Your task to perform on an android device: install app "Microsoft Excel" Image 0: 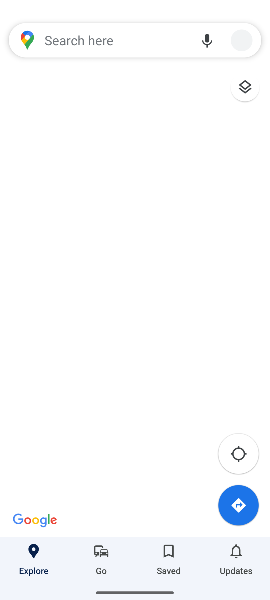
Step 0: press home button
Your task to perform on an android device: install app "Microsoft Excel" Image 1: 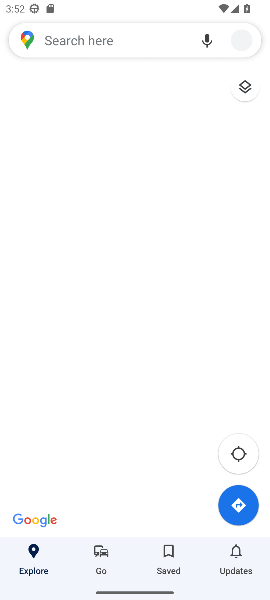
Step 1: press home button
Your task to perform on an android device: install app "Microsoft Excel" Image 2: 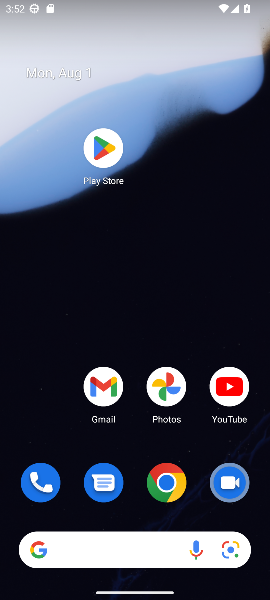
Step 2: click (104, 150)
Your task to perform on an android device: install app "Microsoft Excel" Image 3: 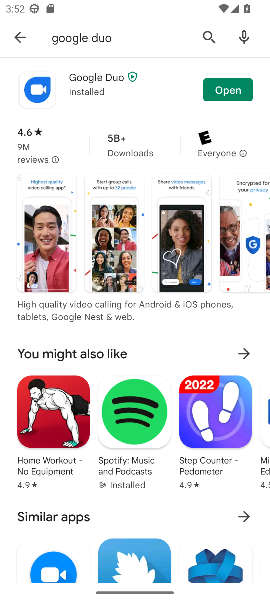
Step 3: click (203, 34)
Your task to perform on an android device: install app "Microsoft Excel" Image 4: 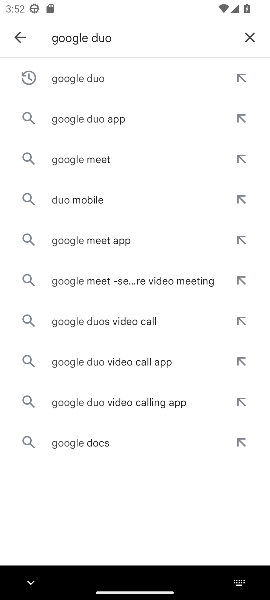
Step 4: click (248, 31)
Your task to perform on an android device: install app "Microsoft Excel" Image 5: 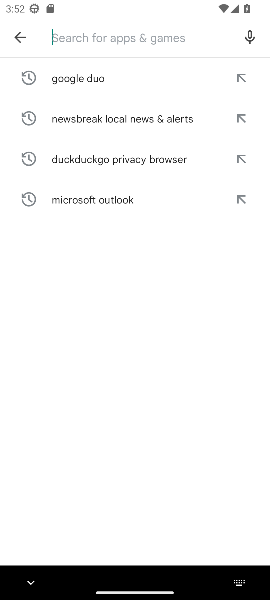
Step 5: type "Microsoft Excel"
Your task to perform on an android device: install app "Microsoft Excel" Image 6: 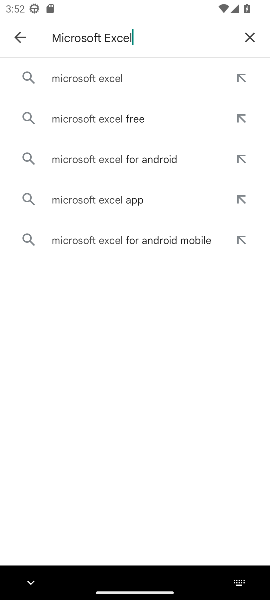
Step 6: click (108, 76)
Your task to perform on an android device: install app "Microsoft Excel" Image 7: 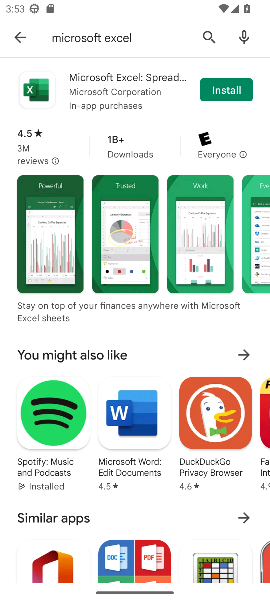
Step 7: click (229, 87)
Your task to perform on an android device: install app "Microsoft Excel" Image 8: 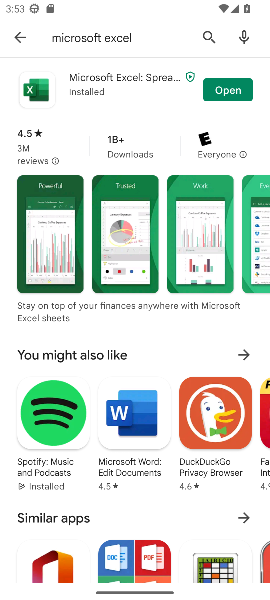
Step 8: task complete